Your task to perform on an android device: open app "Mercado Libre" (install if not already installed) and enter user name: "tolerating@yahoo.com" and password: "Kepler" Image 0: 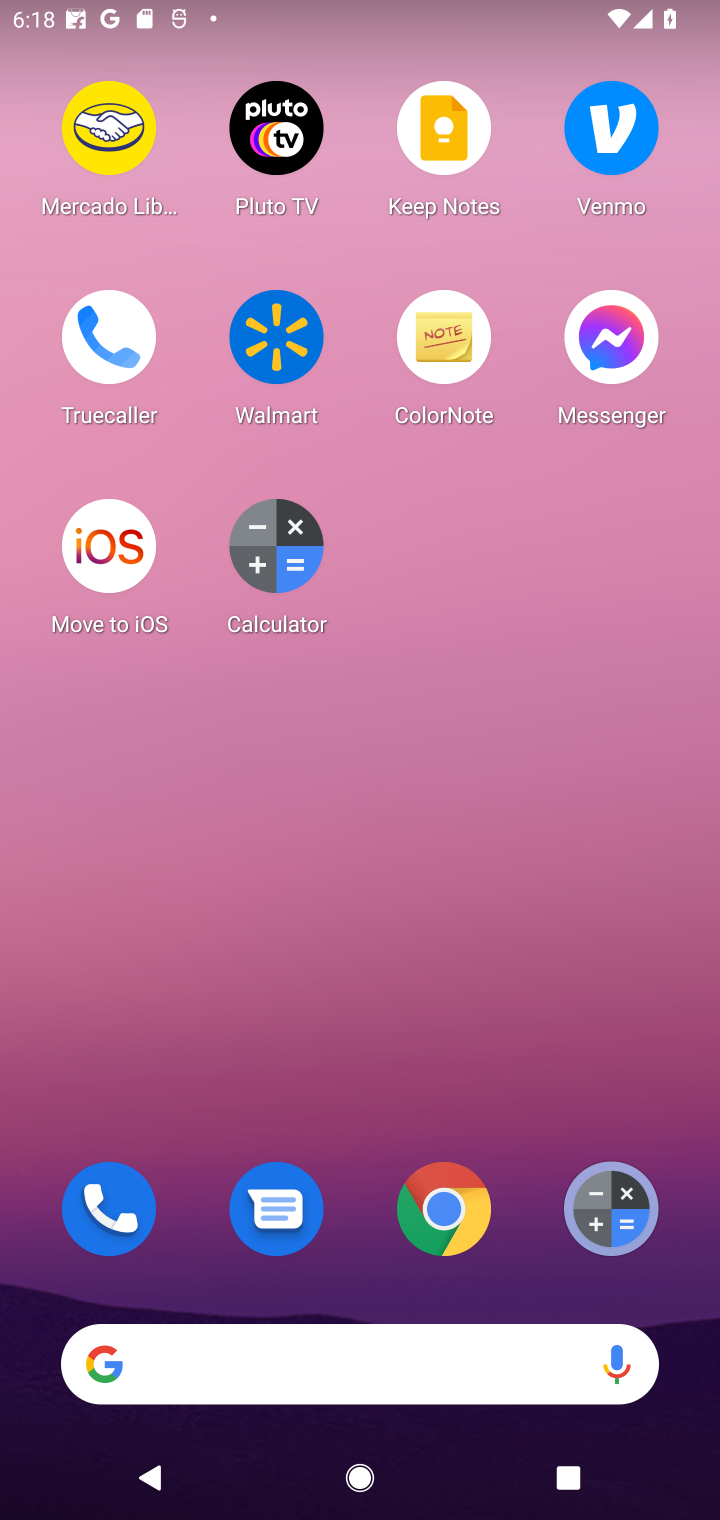
Step 0: click (144, 173)
Your task to perform on an android device: open app "Mercado Libre" (install if not already installed) and enter user name: "tolerating@yahoo.com" and password: "Kepler" Image 1: 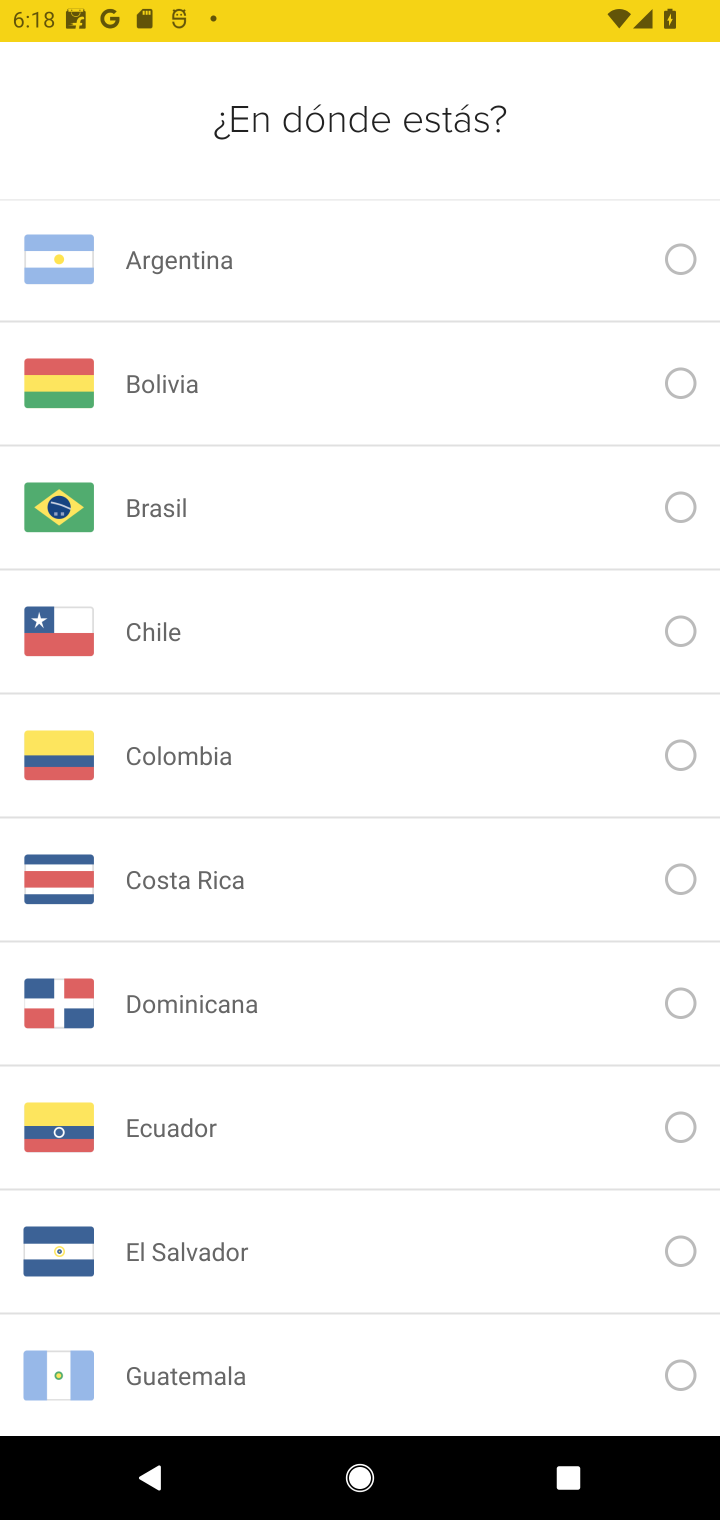
Step 1: click (482, 290)
Your task to perform on an android device: open app "Mercado Libre" (install if not already installed) and enter user name: "tolerating@yahoo.com" and password: "Kepler" Image 2: 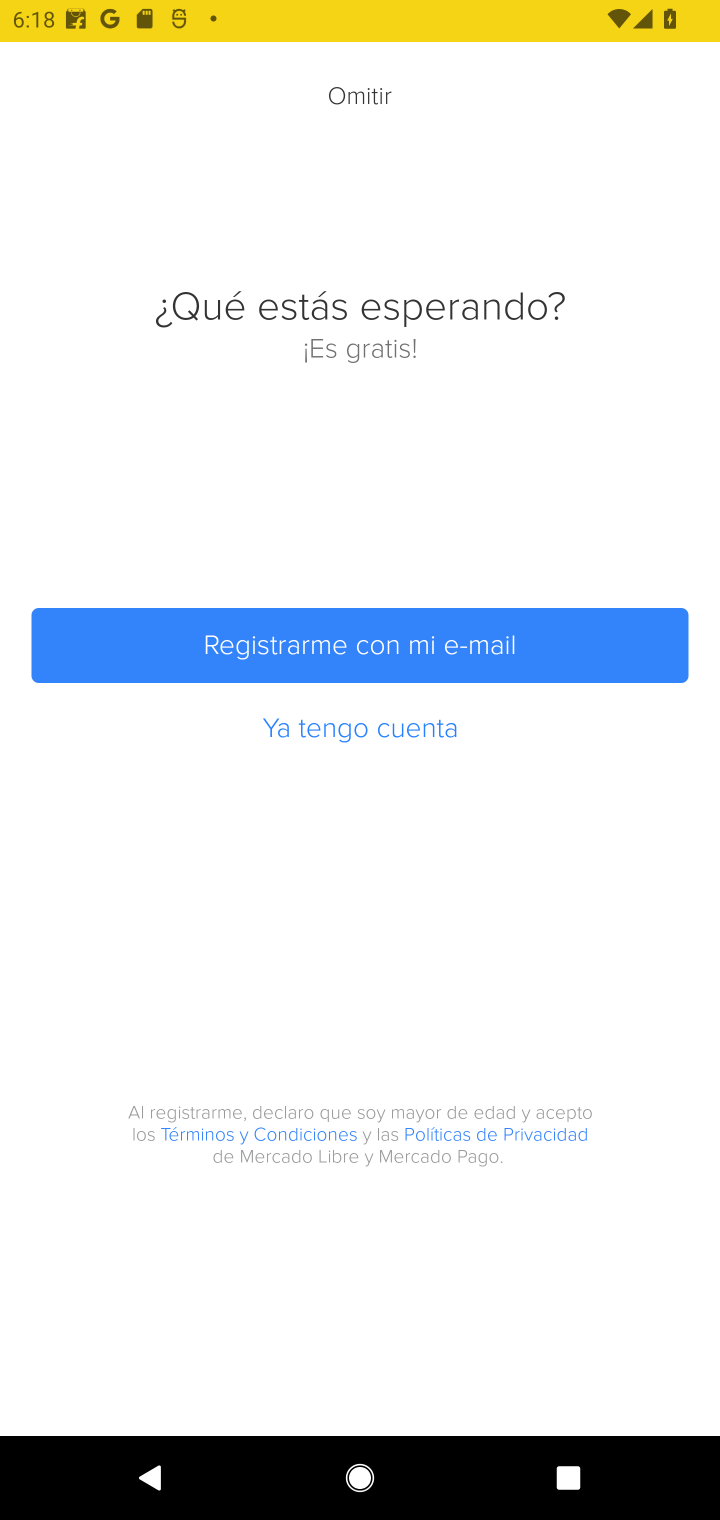
Step 2: click (441, 673)
Your task to perform on an android device: open app "Mercado Libre" (install if not already installed) and enter user name: "tolerating@yahoo.com" and password: "Kepler" Image 3: 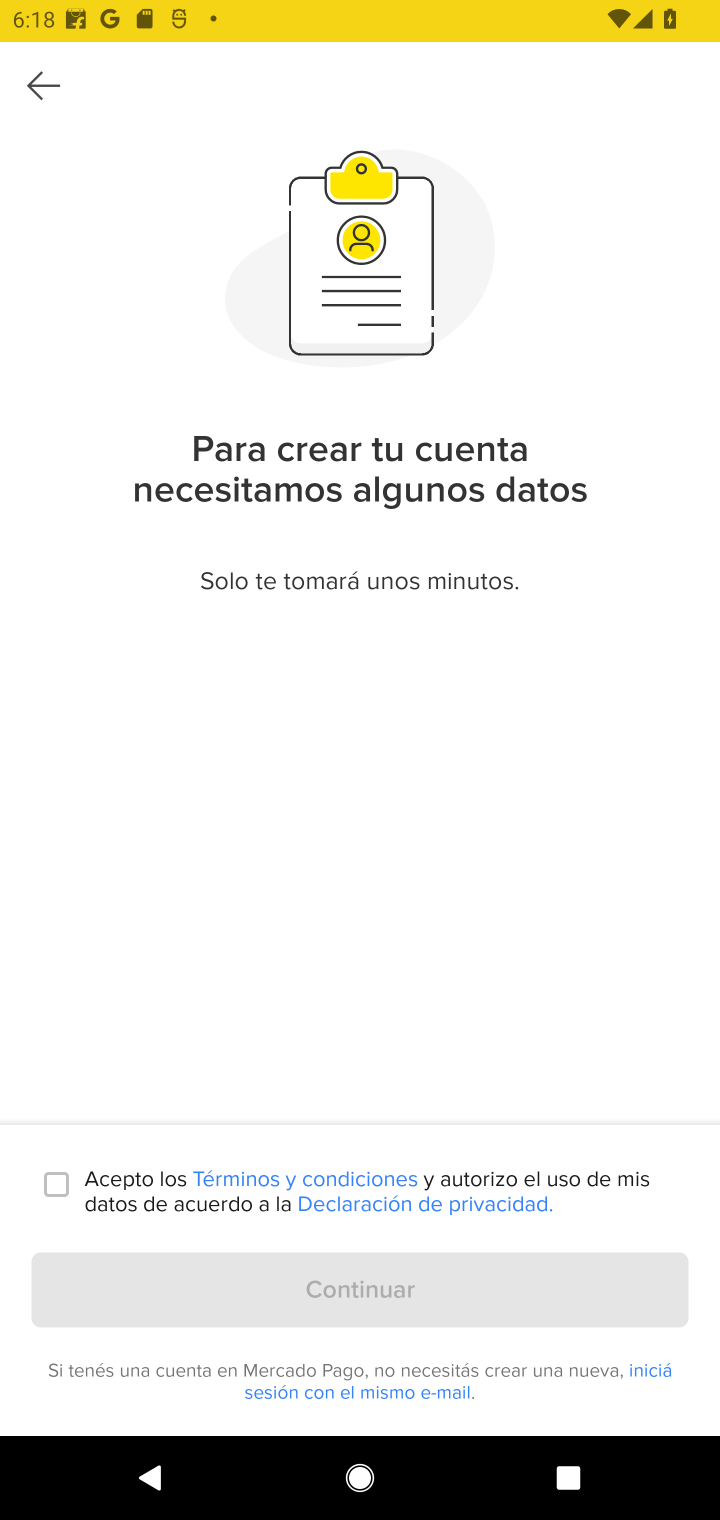
Step 3: click (87, 1188)
Your task to perform on an android device: open app "Mercado Libre" (install if not already installed) and enter user name: "tolerating@yahoo.com" and password: "Kepler" Image 4: 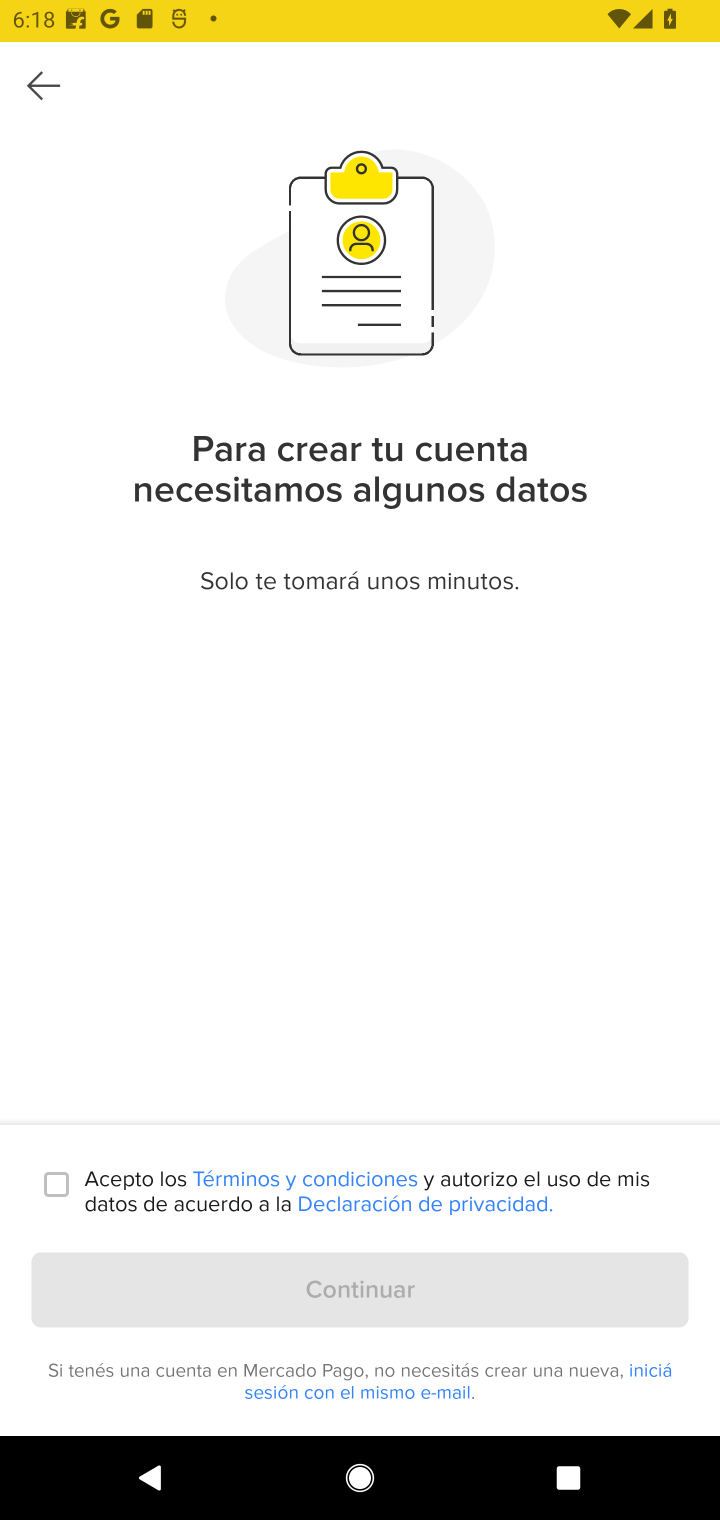
Step 4: click (63, 1190)
Your task to perform on an android device: open app "Mercado Libre" (install if not already installed) and enter user name: "tolerating@yahoo.com" and password: "Kepler" Image 5: 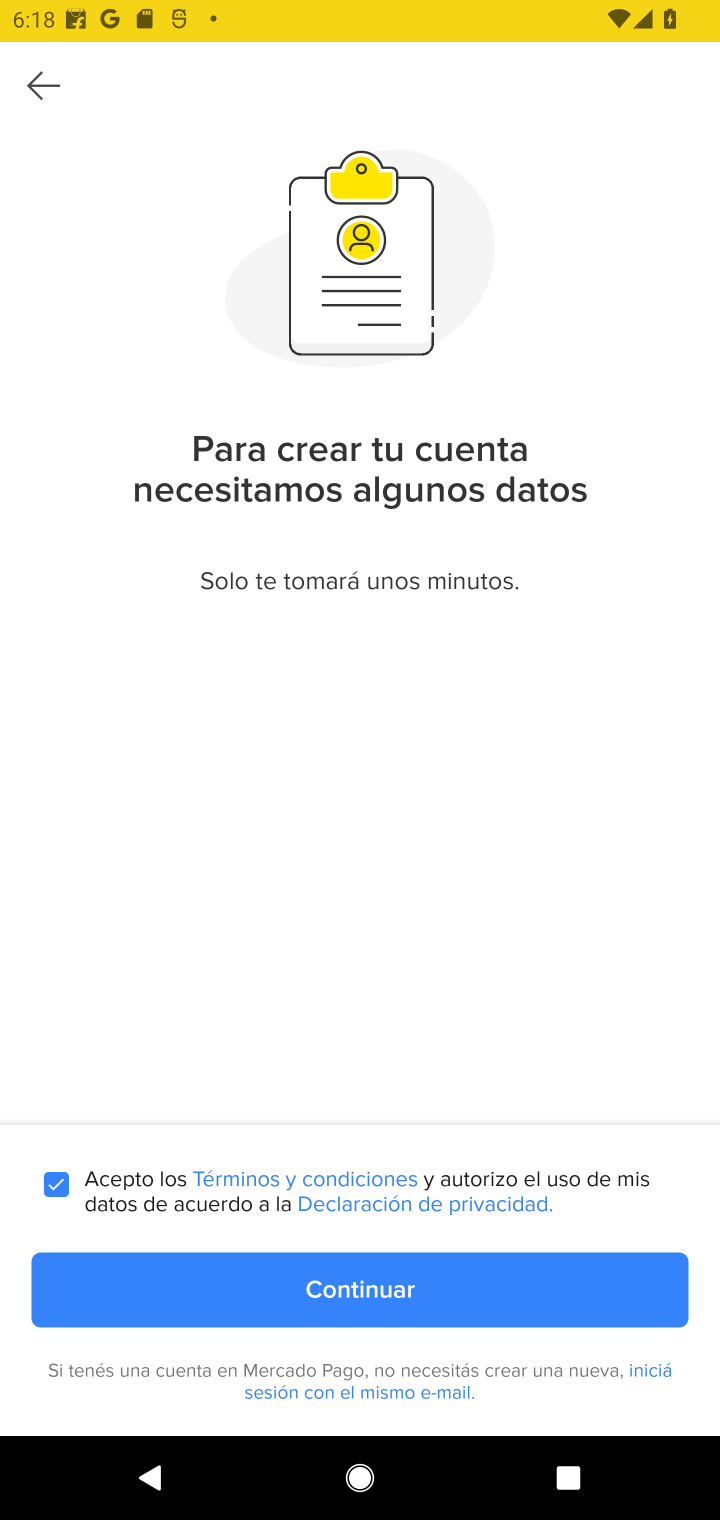
Step 5: click (273, 1319)
Your task to perform on an android device: open app "Mercado Libre" (install if not already installed) and enter user name: "tolerating@yahoo.com" and password: "Kepler" Image 6: 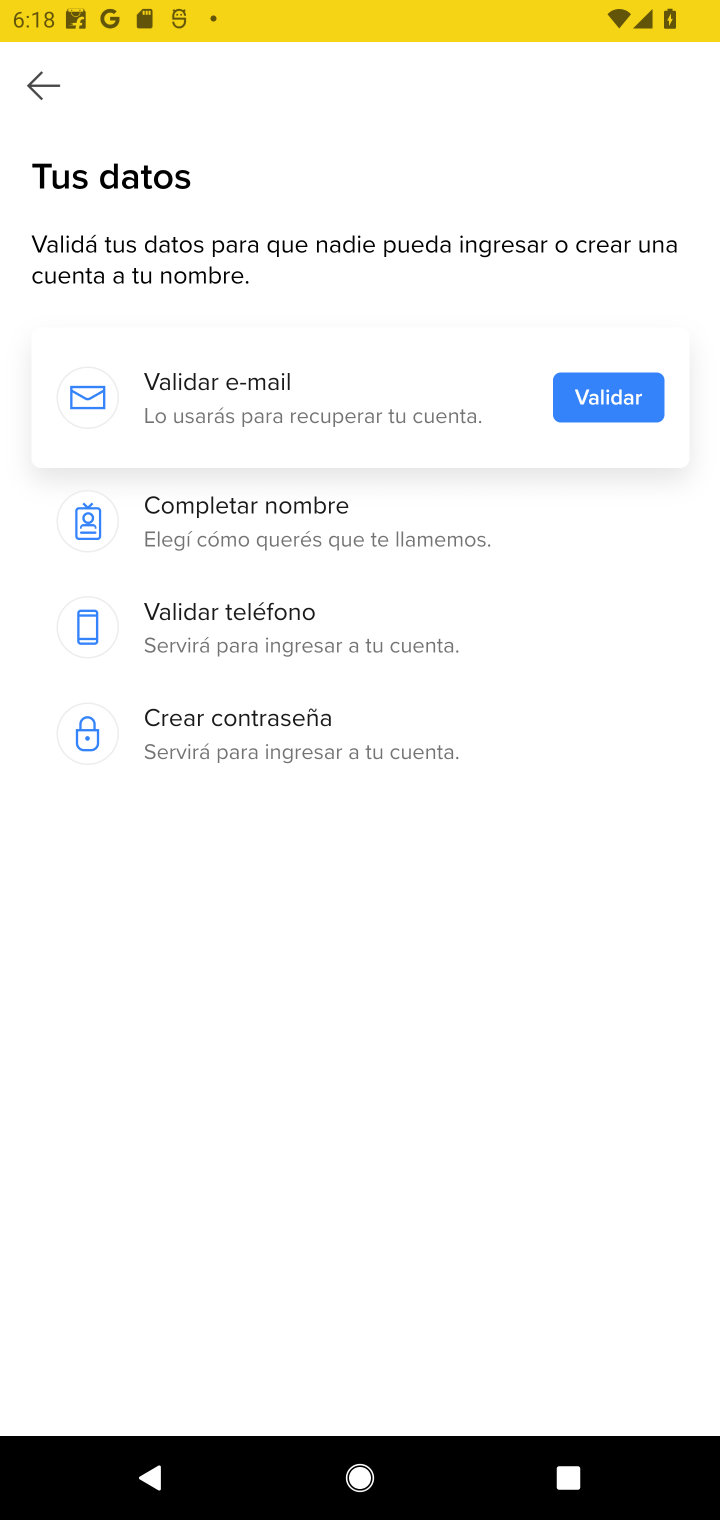
Step 6: click (546, 431)
Your task to perform on an android device: open app "Mercado Libre" (install if not already installed) and enter user name: "tolerating@yahoo.com" and password: "Kepler" Image 7: 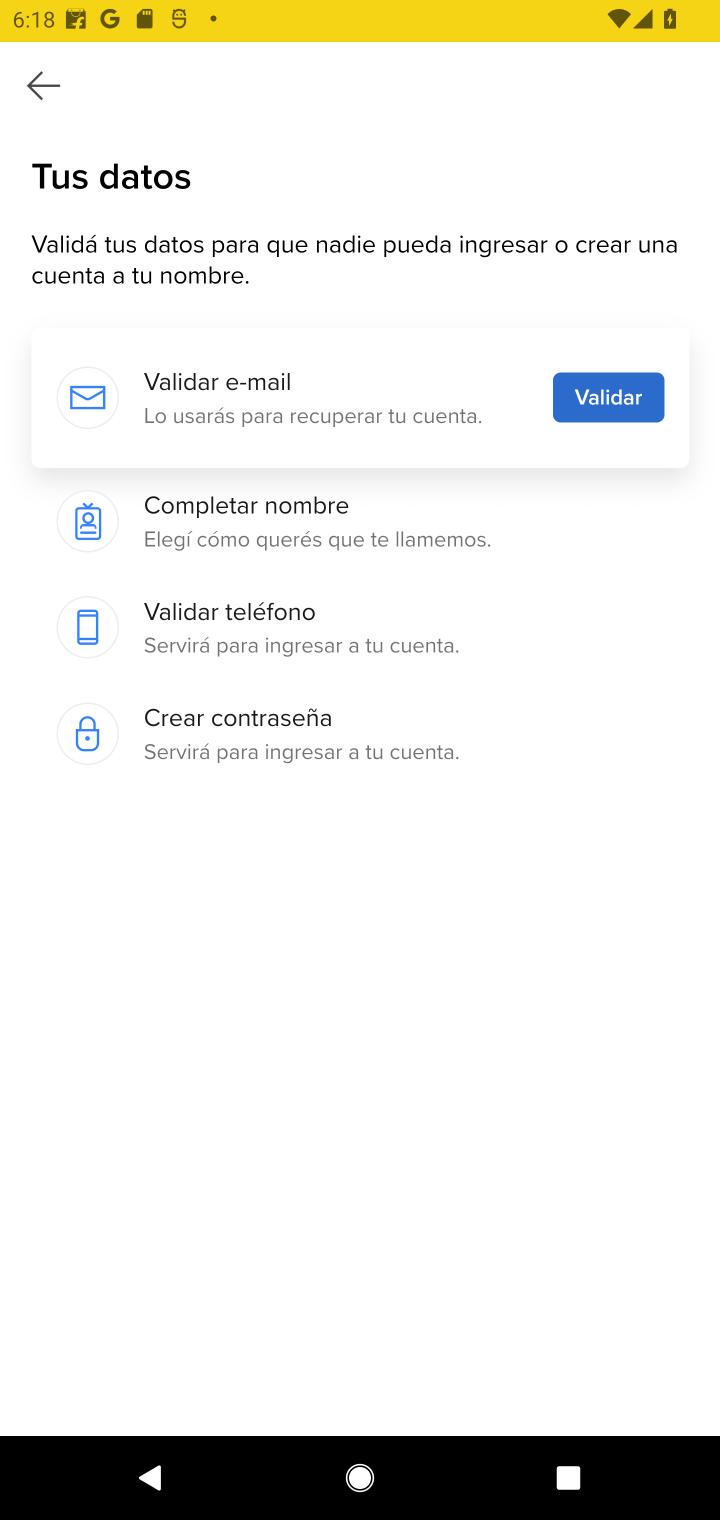
Step 7: click (591, 407)
Your task to perform on an android device: open app "Mercado Libre" (install if not already installed) and enter user name: "tolerating@yahoo.com" and password: "Kepler" Image 8: 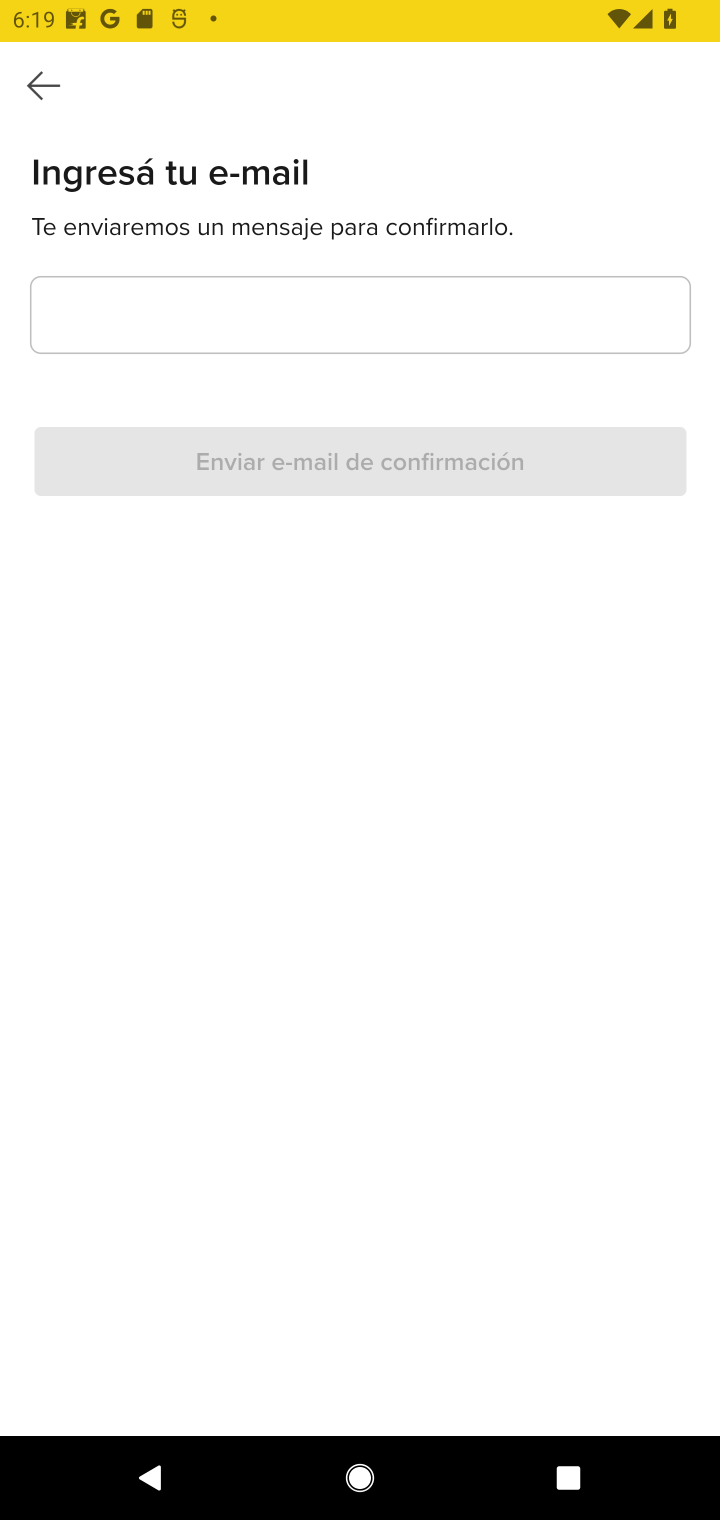
Step 8: click (277, 299)
Your task to perform on an android device: open app "Mercado Libre" (install if not already installed) and enter user name: "tolerating@yahoo.com" and password: "Kepler" Image 9: 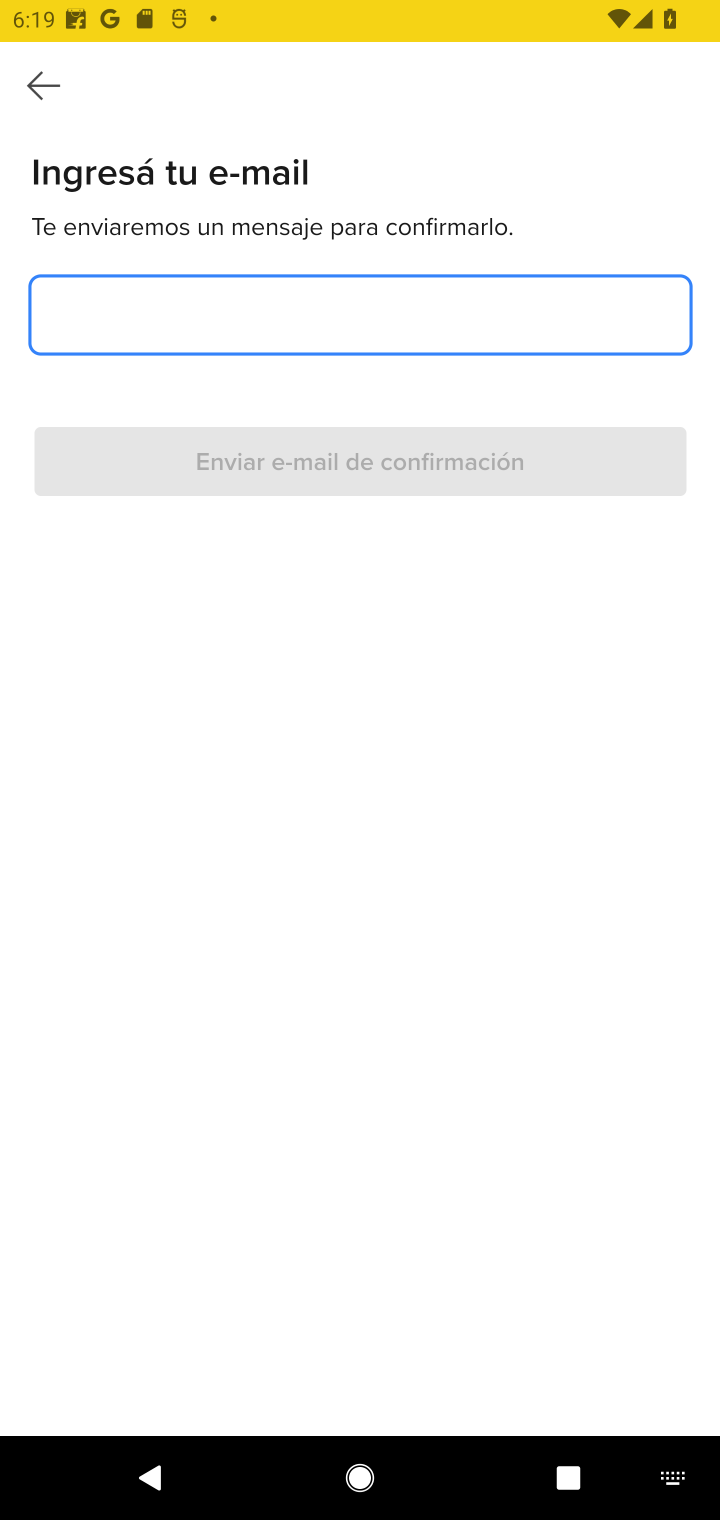
Step 9: type "tolerating@yahoo.com"
Your task to perform on an android device: open app "Mercado Libre" (install if not already installed) and enter user name: "tolerating@yahoo.com" and password: "Kepler" Image 10: 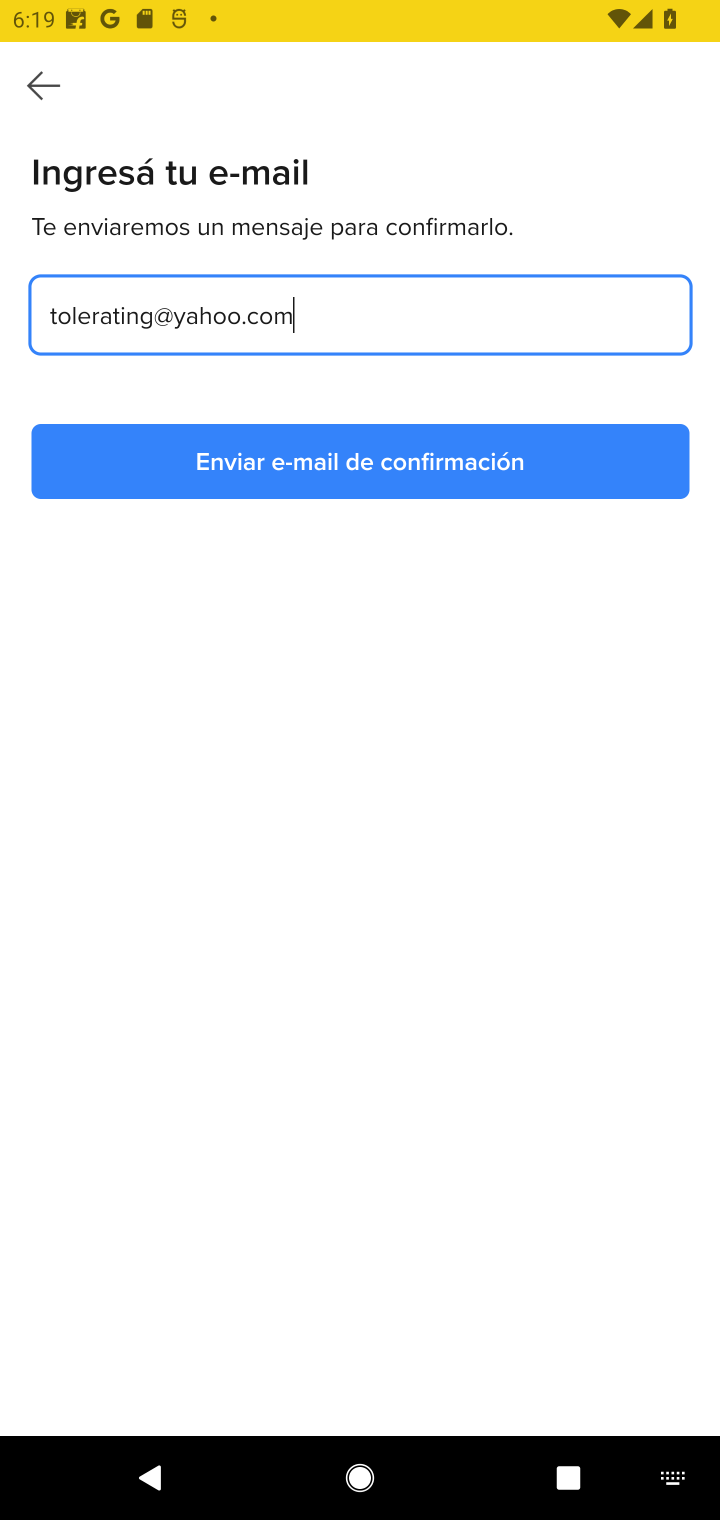
Step 10: click (279, 465)
Your task to perform on an android device: open app "Mercado Libre" (install if not already installed) and enter user name: "tolerating@yahoo.com" and password: "Kepler" Image 11: 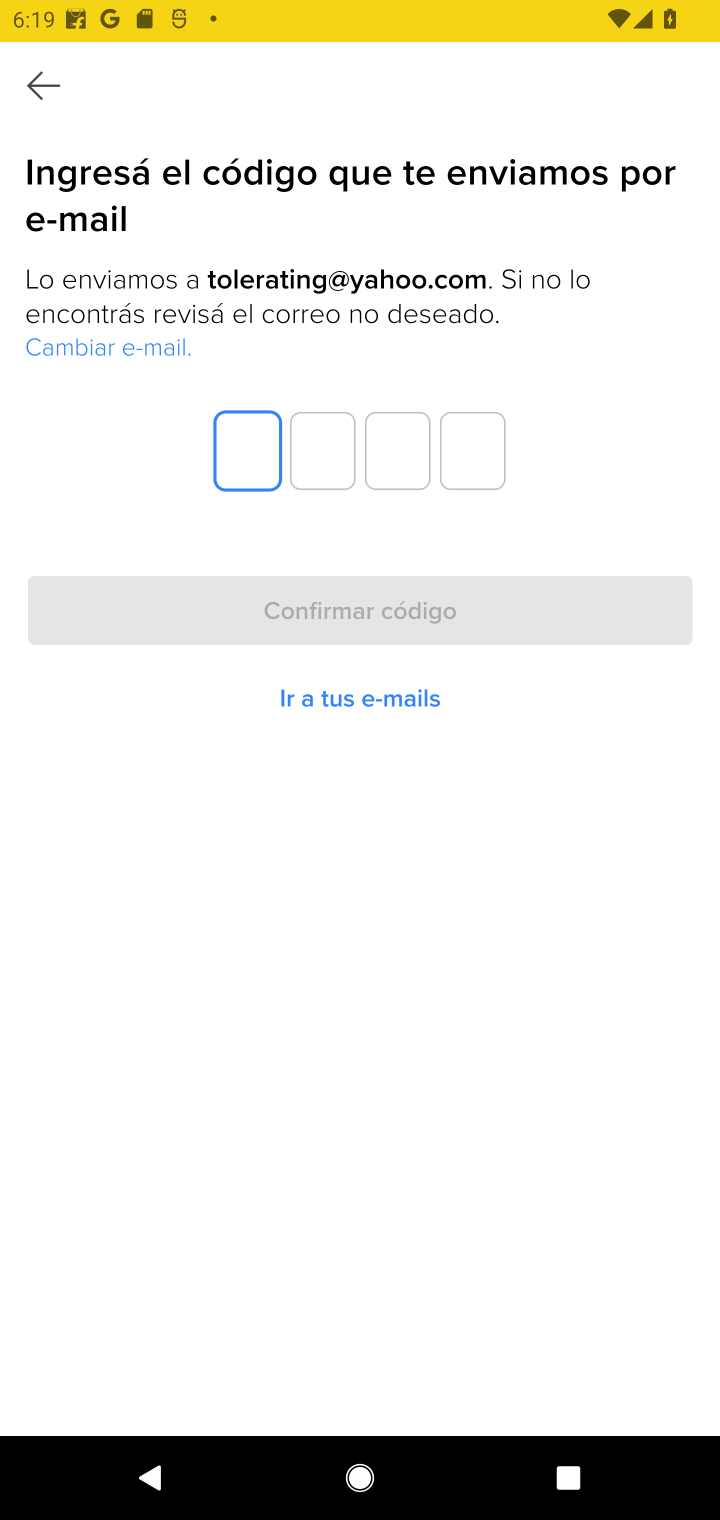
Step 11: click (226, 444)
Your task to perform on an android device: open app "Mercado Libre" (install if not already installed) and enter user name: "tolerating@yahoo.com" and password: "Kepler" Image 12: 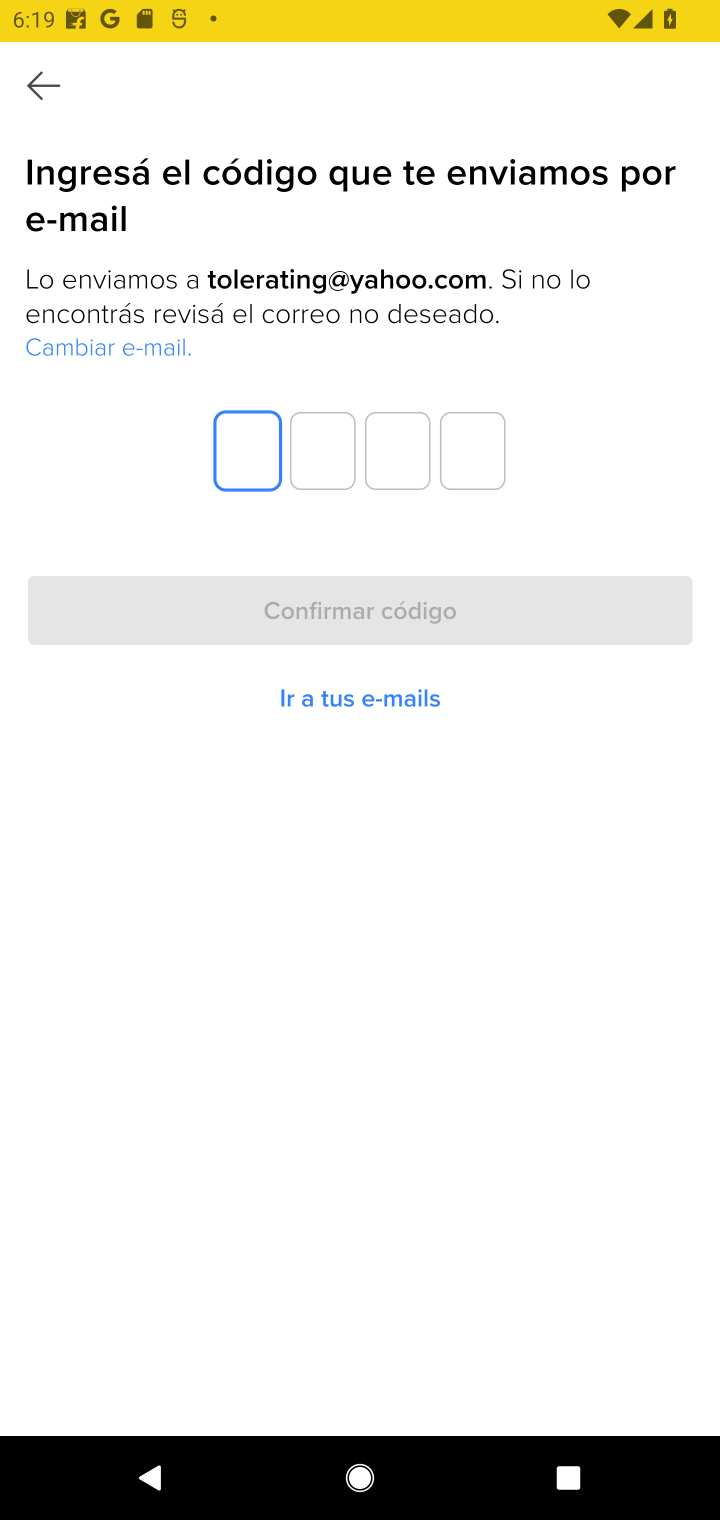
Step 12: click (226, 444)
Your task to perform on an android device: open app "Mercado Libre" (install if not already installed) and enter user name: "tolerating@yahoo.com" and password: "Kepler" Image 13: 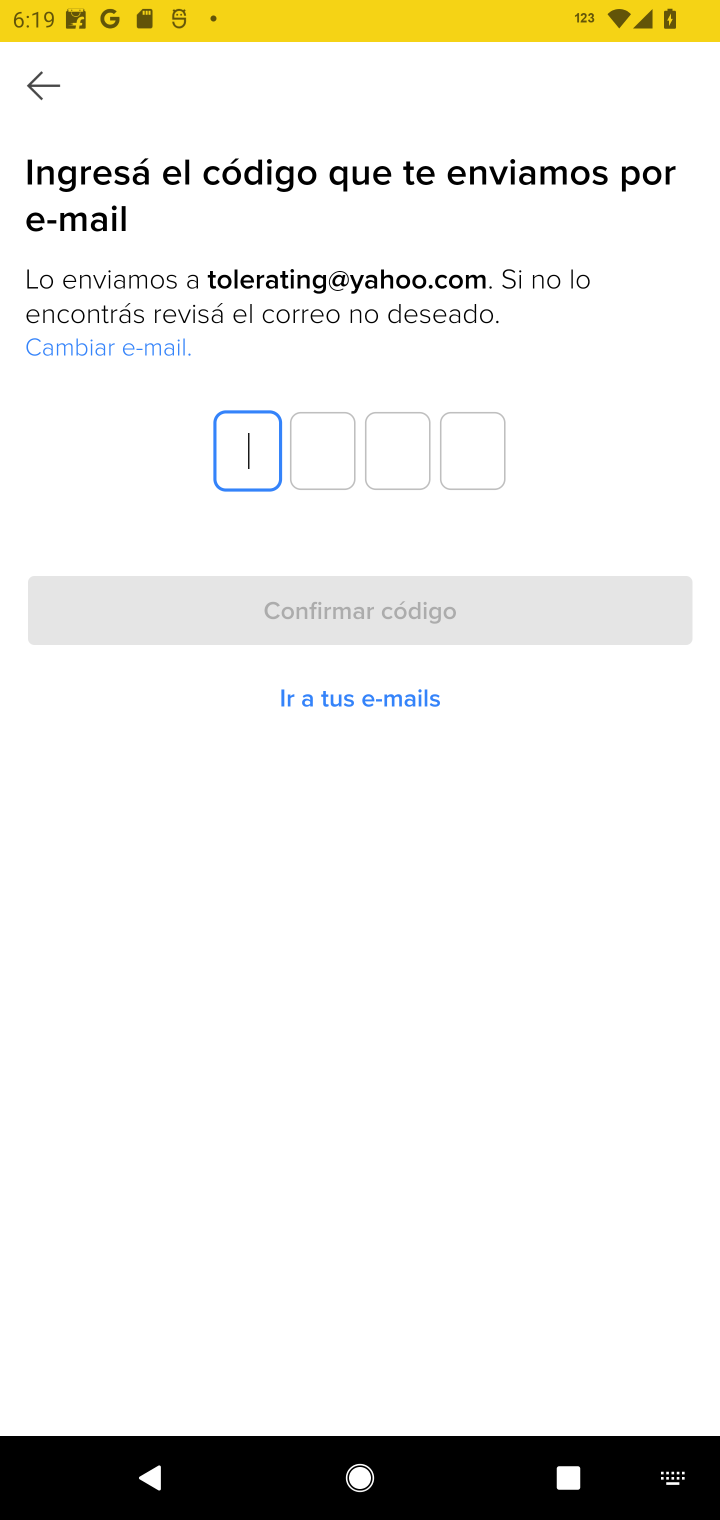
Step 13: type "Kepler"
Your task to perform on an android device: open app "Mercado Libre" (install if not already installed) and enter user name: "tolerating@yahoo.com" and password: "Kepler" Image 14: 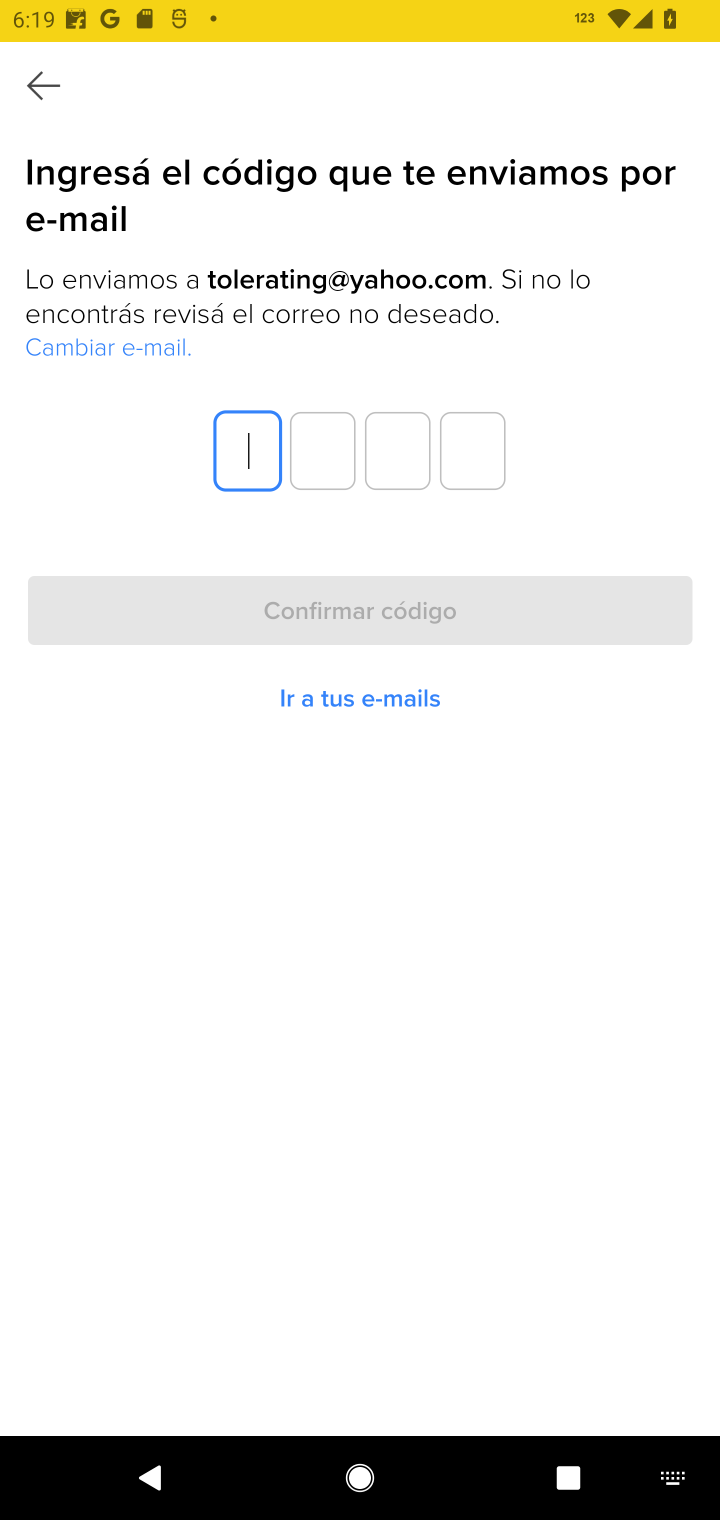
Step 14: task complete